Your task to perform on an android device: Open notification settings Image 0: 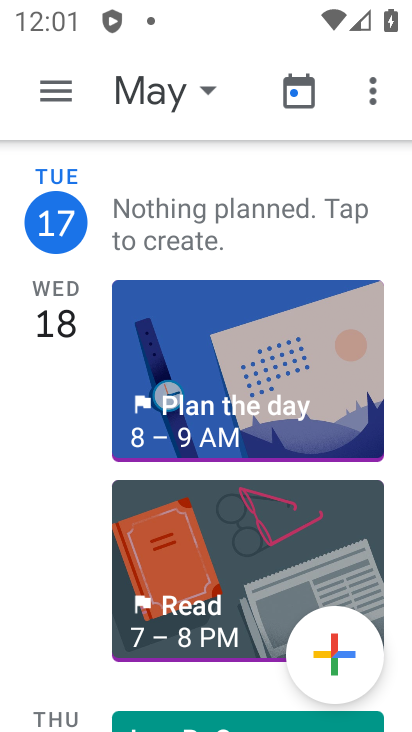
Step 0: press home button
Your task to perform on an android device: Open notification settings Image 1: 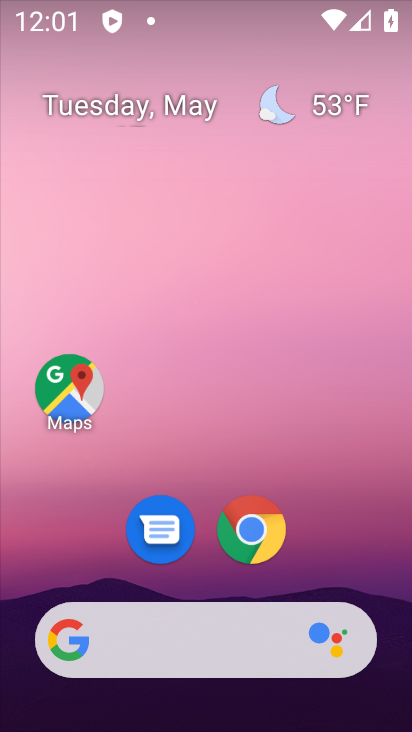
Step 1: drag from (196, 570) to (242, 73)
Your task to perform on an android device: Open notification settings Image 2: 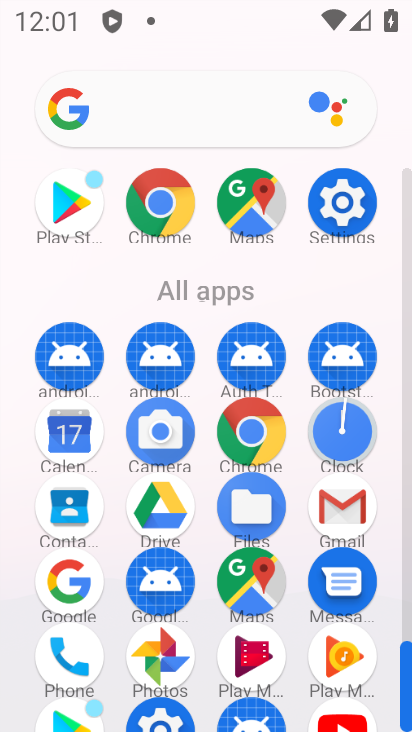
Step 2: click (340, 242)
Your task to perform on an android device: Open notification settings Image 3: 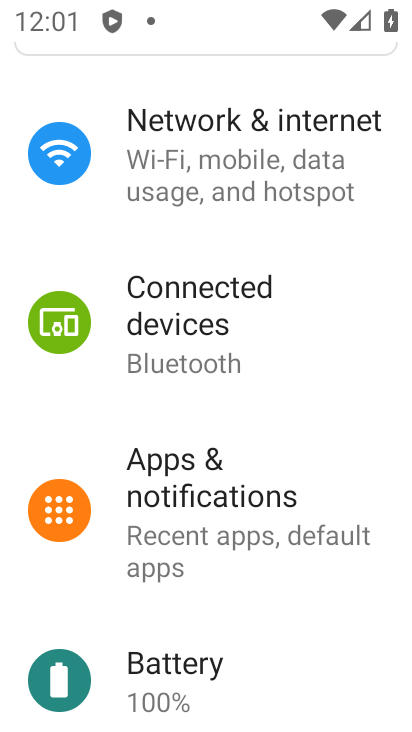
Step 3: click (201, 502)
Your task to perform on an android device: Open notification settings Image 4: 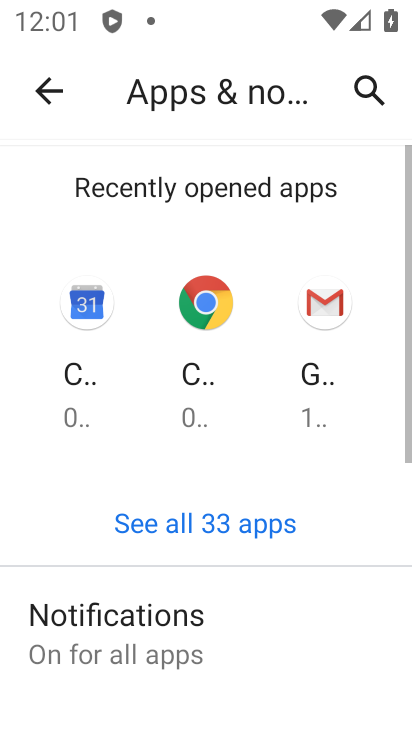
Step 4: task complete